Your task to perform on an android device: turn on notifications settings in the gmail app Image 0: 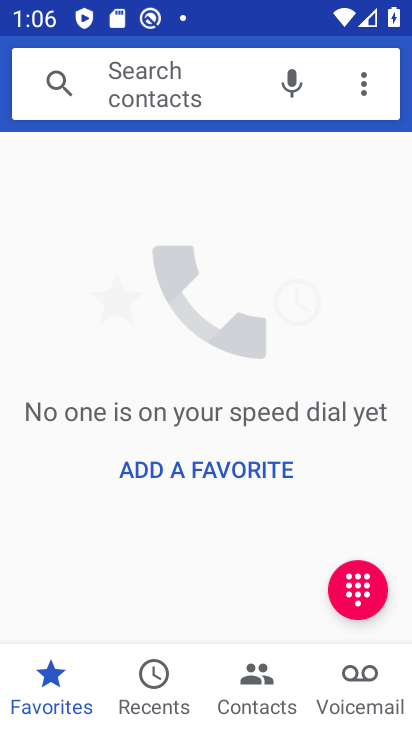
Step 0: press home button
Your task to perform on an android device: turn on notifications settings in the gmail app Image 1: 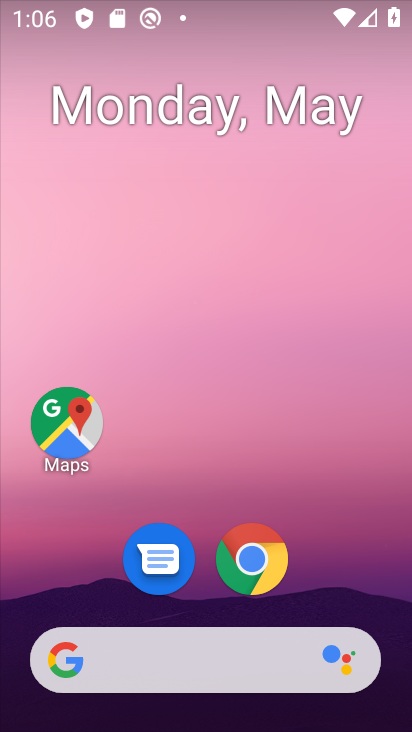
Step 1: drag from (162, 708) to (270, 78)
Your task to perform on an android device: turn on notifications settings in the gmail app Image 2: 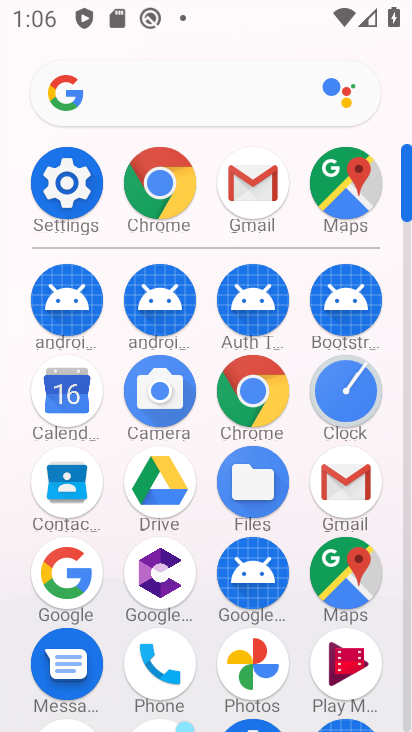
Step 2: click (264, 176)
Your task to perform on an android device: turn on notifications settings in the gmail app Image 3: 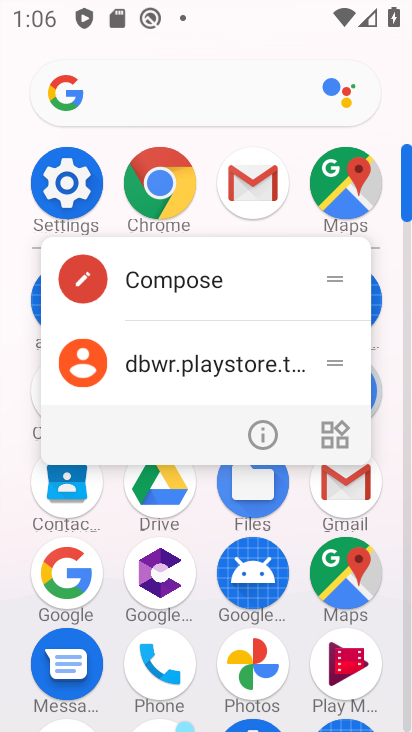
Step 3: click (266, 429)
Your task to perform on an android device: turn on notifications settings in the gmail app Image 4: 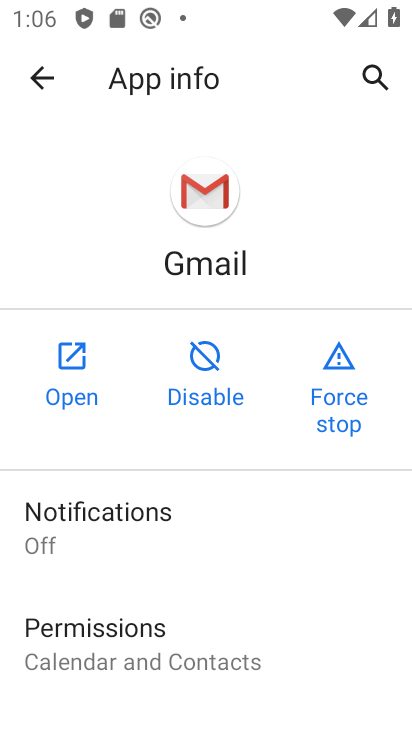
Step 4: click (116, 522)
Your task to perform on an android device: turn on notifications settings in the gmail app Image 5: 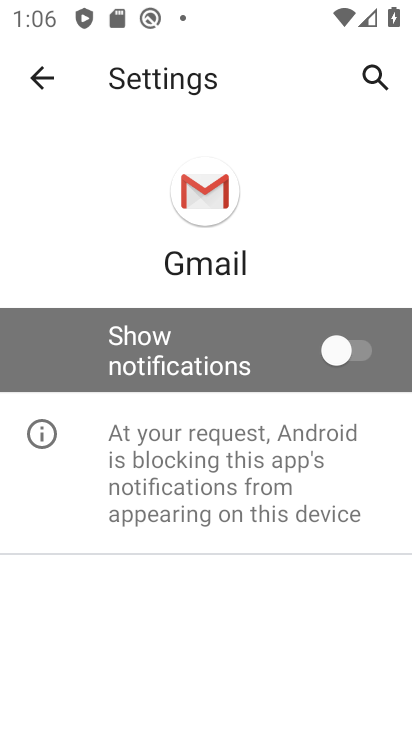
Step 5: click (338, 353)
Your task to perform on an android device: turn on notifications settings in the gmail app Image 6: 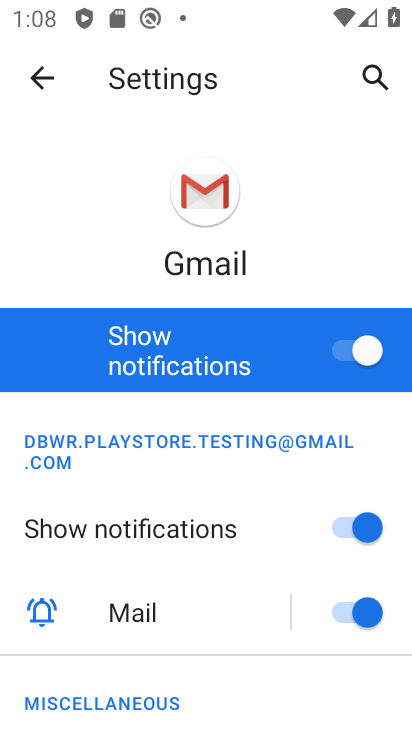
Step 6: task complete